Your task to perform on an android device: Look up the best rated gaming chair on Best Buy Image 0: 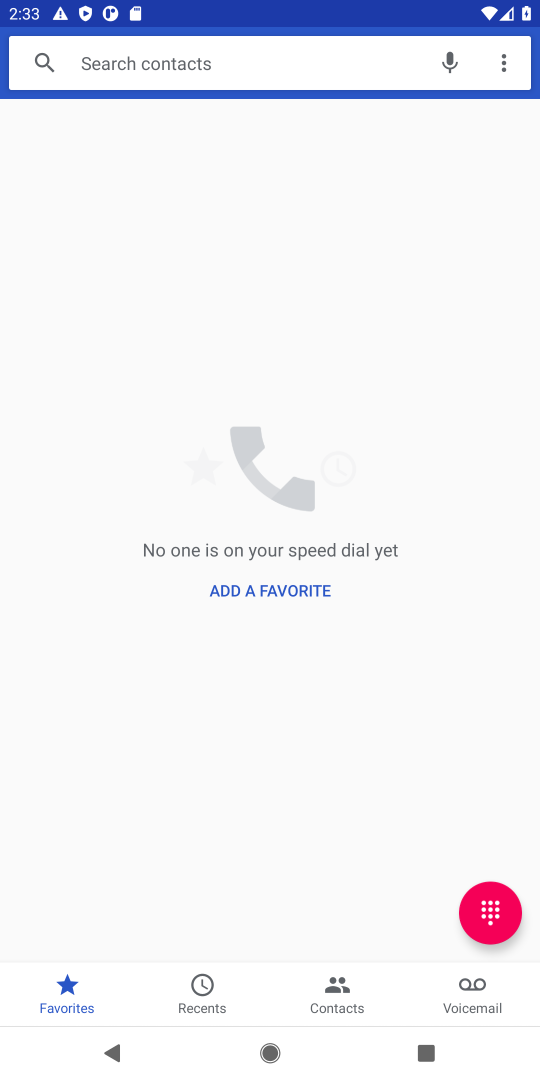
Step 0: press home button
Your task to perform on an android device: Look up the best rated gaming chair on Best Buy Image 1: 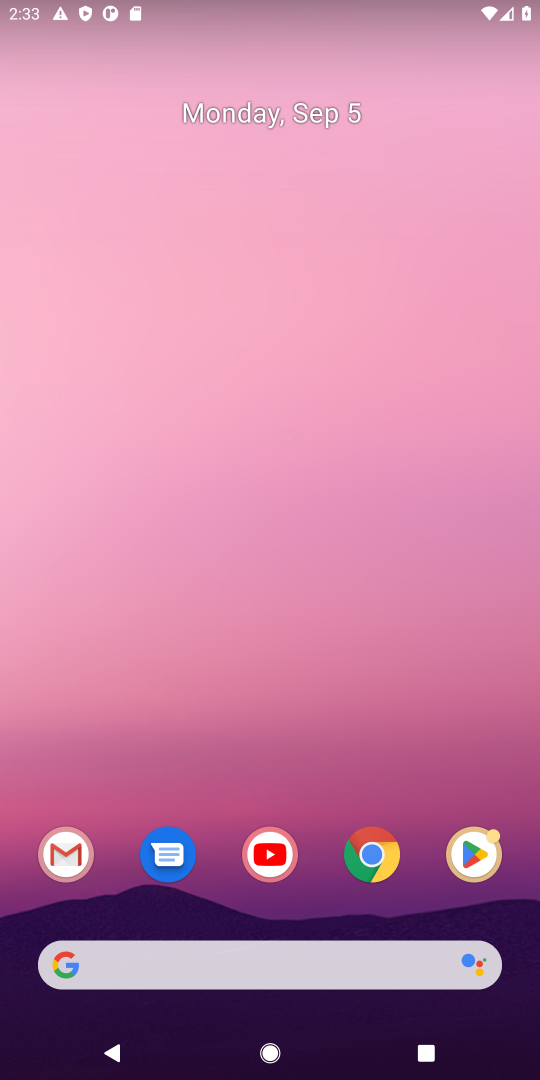
Step 1: click (369, 963)
Your task to perform on an android device: Look up the best rated gaming chair on Best Buy Image 2: 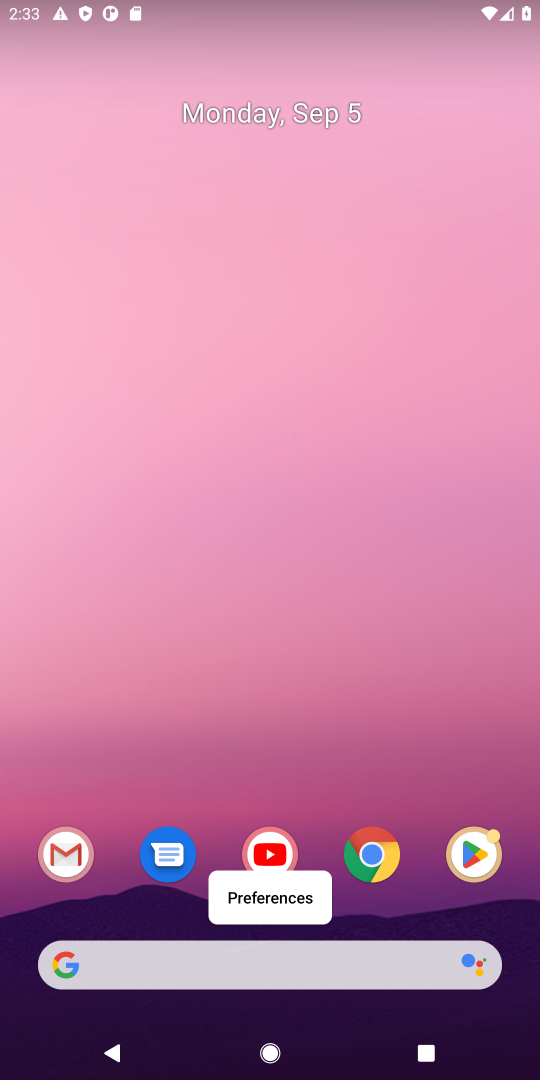
Step 2: click (242, 963)
Your task to perform on an android device: Look up the best rated gaming chair on Best Buy Image 3: 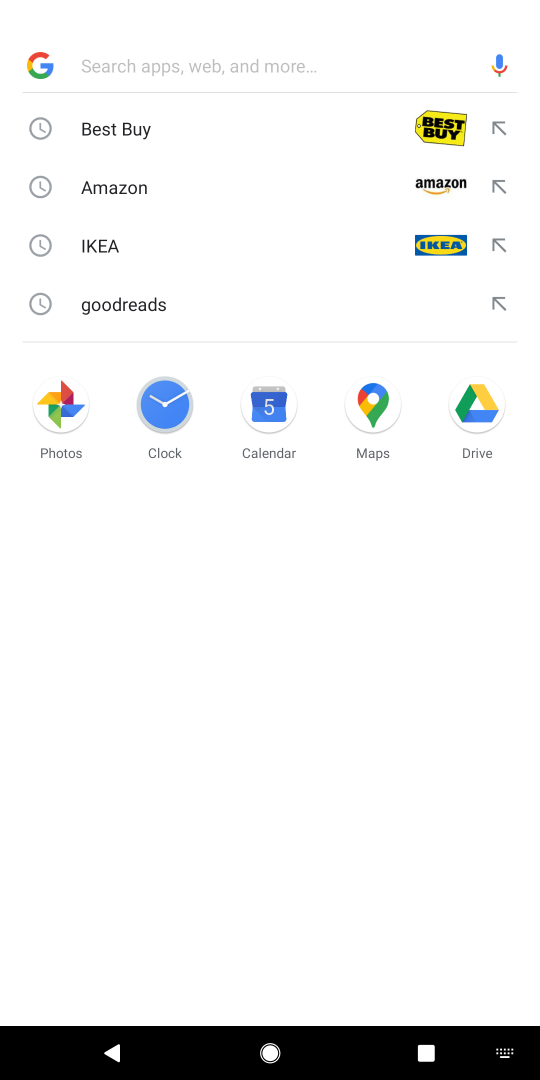
Step 3: type "best buy"
Your task to perform on an android device: Look up the best rated gaming chair on Best Buy Image 4: 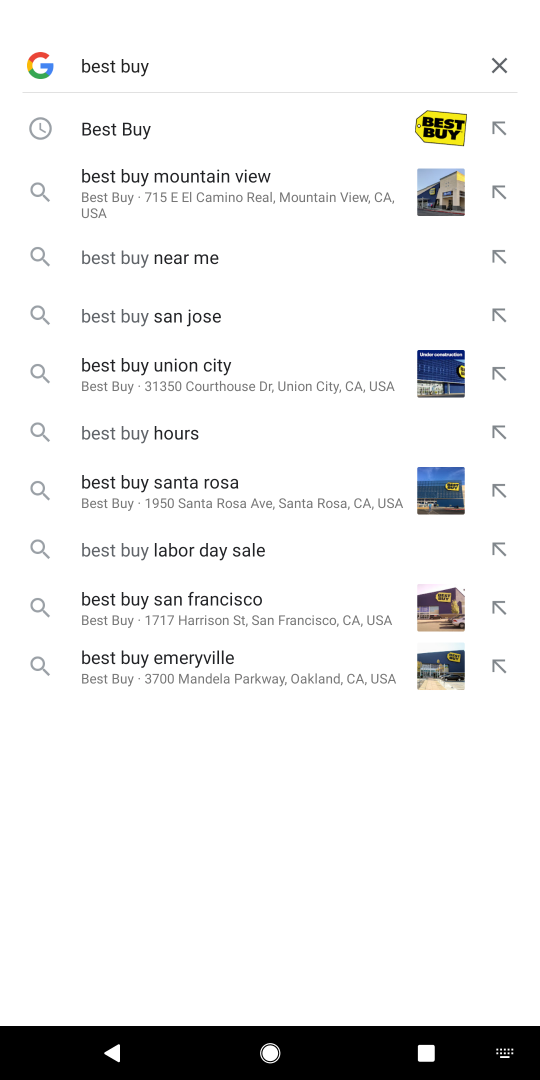
Step 4: press enter
Your task to perform on an android device: Look up the best rated gaming chair on Best Buy Image 5: 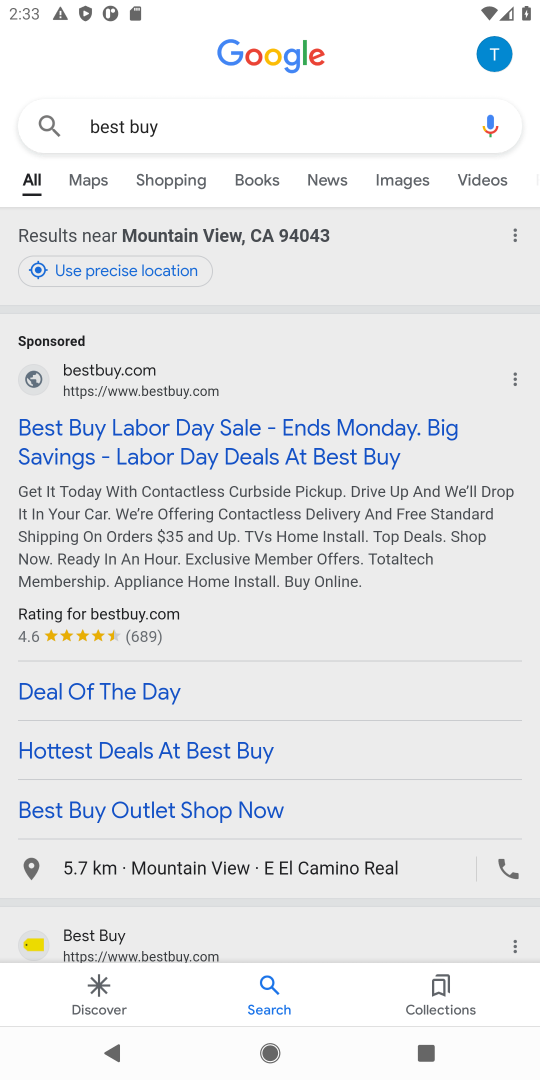
Step 5: click (209, 439)
Your task to perform on an android device: Look up the best rated gaming chair on Best Buy Image 6: 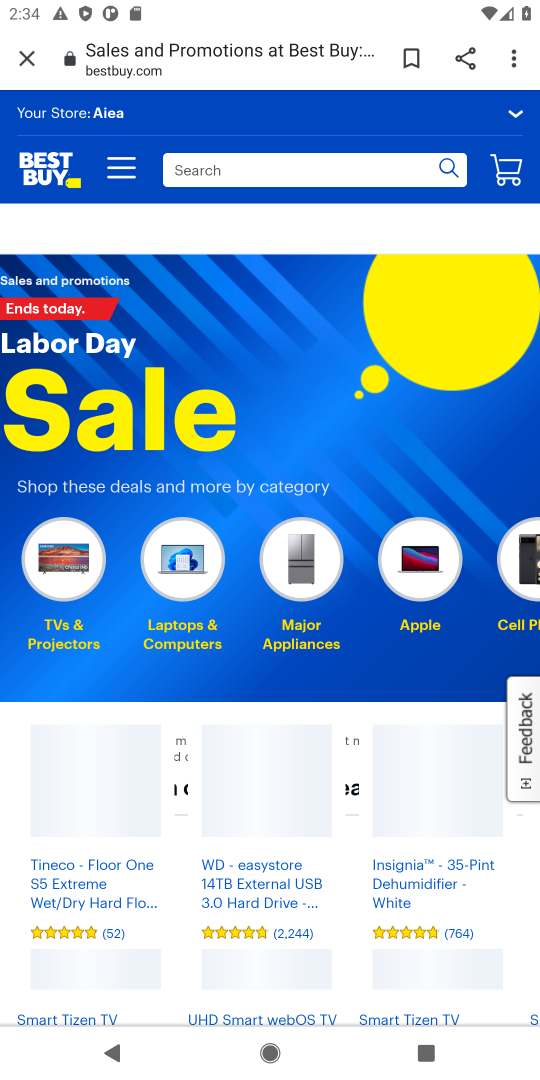
Step 6: click (249, 168)
Your task to perform on an android device: Look up the best rated gaming chair on Best Buy Image 7: 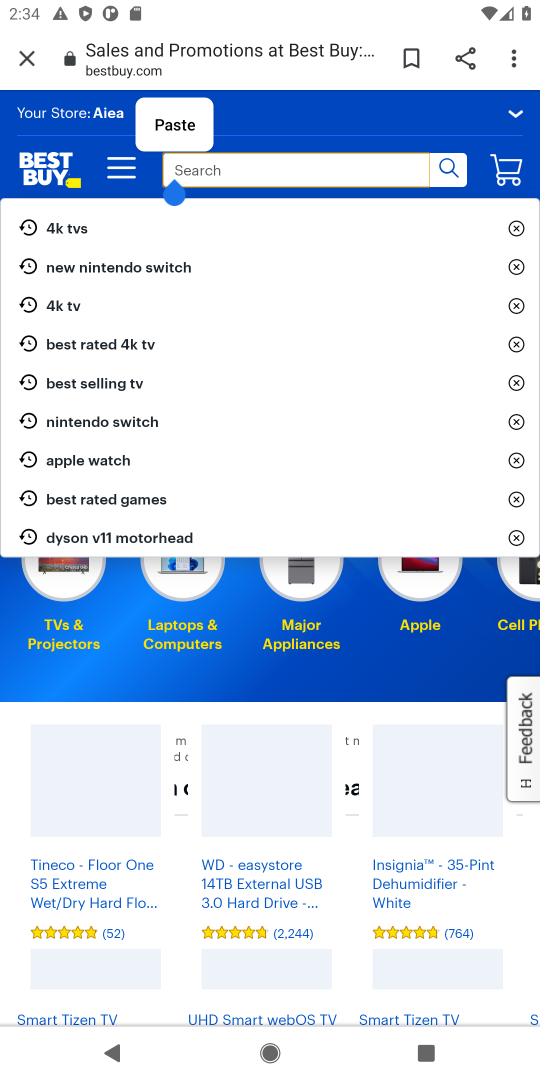
Step 7: type "best rated gaming chair"
Your task to perform on an android device: Look up the best rated gaming chair on Best Buy Image 8: 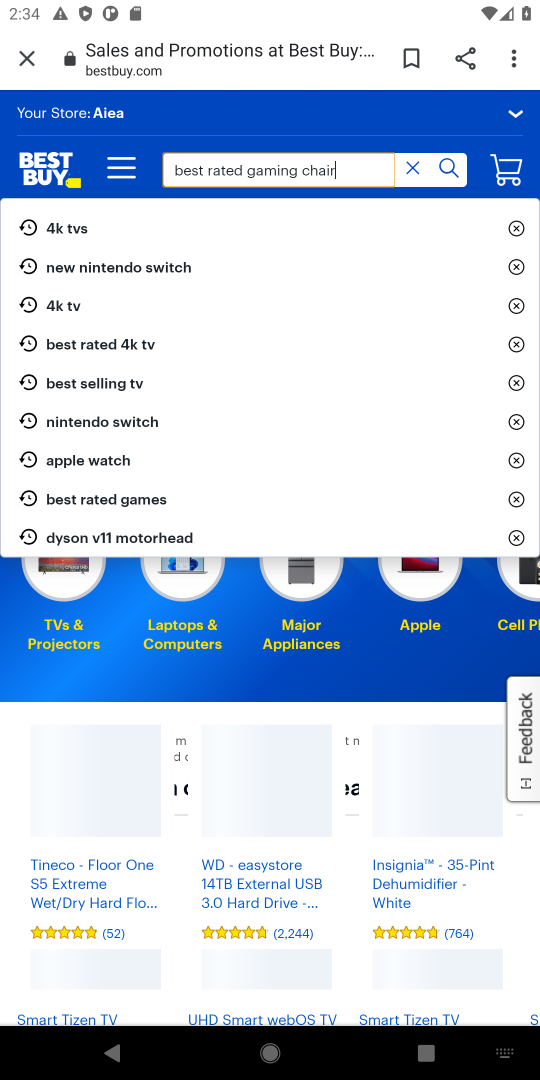
Step 8: press enter
Your task to perform on an android device: Look up the best rated gaming chair on Best Buy Image 9: 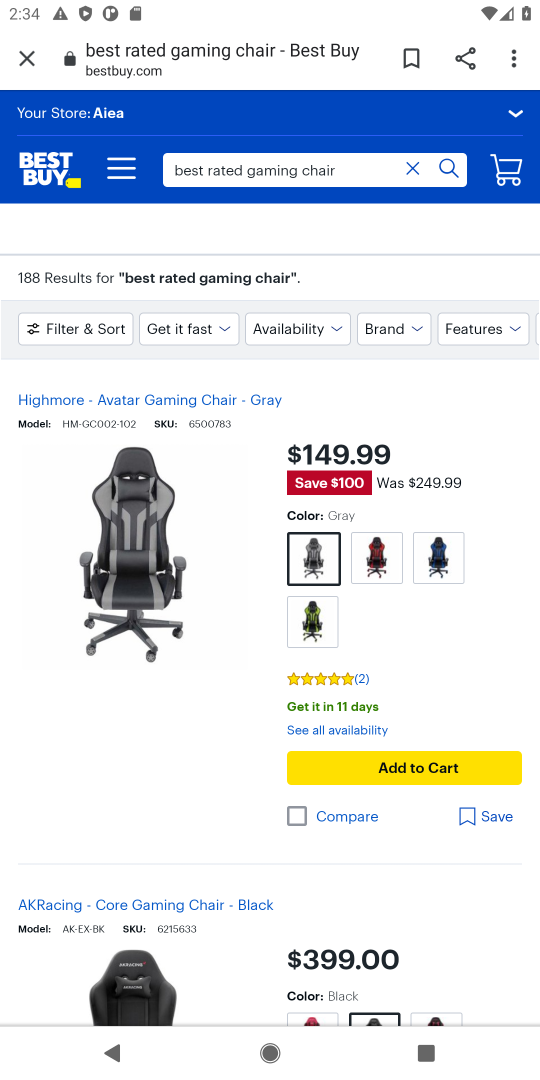
Step 9: task complete